Your task to perform on an android device: Open calendar and show me the third week of next month Image 0: 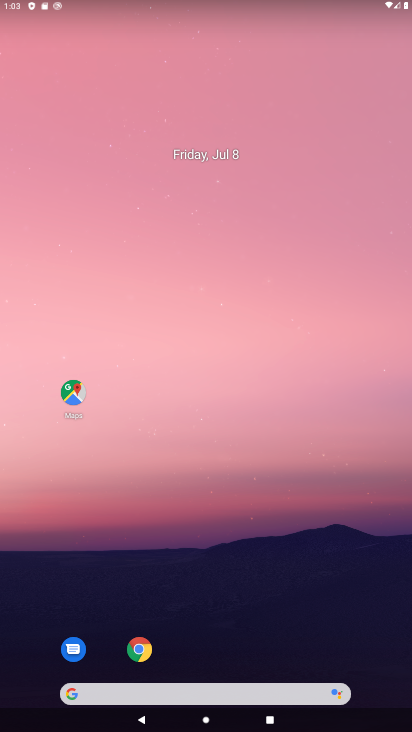
Step 0: drag from (266, 576) to (241, 101)
Your task to perform on an android device: Open calendar and show me the third week of next month Image 1: 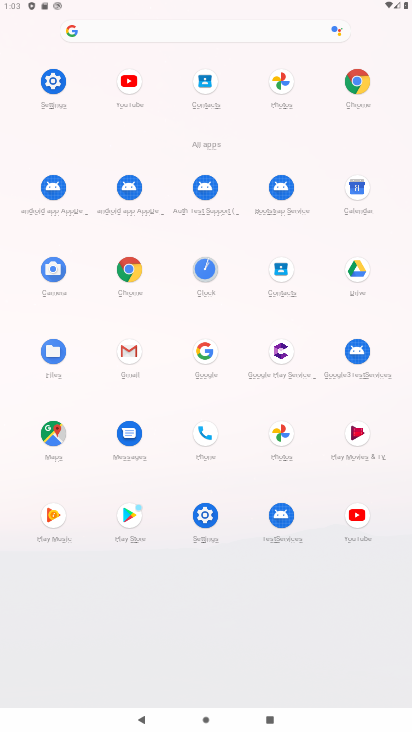
Step 1: click (360, 192)
Your task to perform on an android device: Open calendar and show me the third week of next month Image 2: 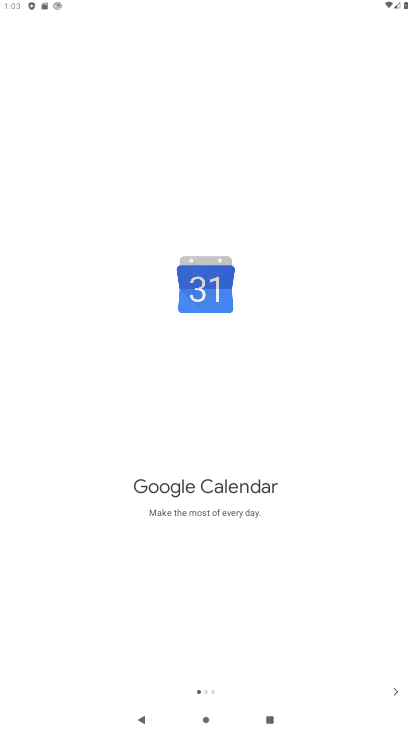
Step 2: click (390, 690)
Your task to perform on an android device: Open calendar and show me the third week of next month Image 3: 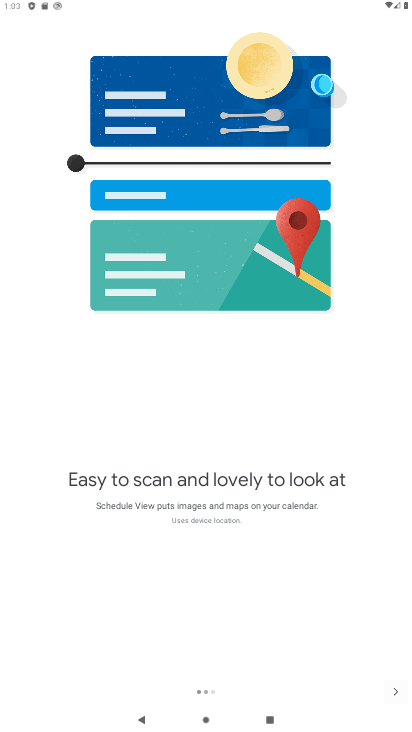
Step 3: click (390, 687)
Your task to perform on an android device: Open calendar and show me the third week of next month Image 4: 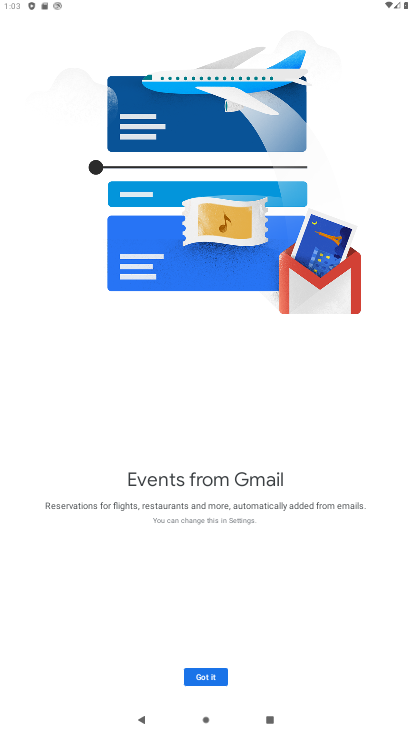
Step 4: click (197, 673)
Your task to perform on an android device: Open calendar and show me the third week of next month Image 5: 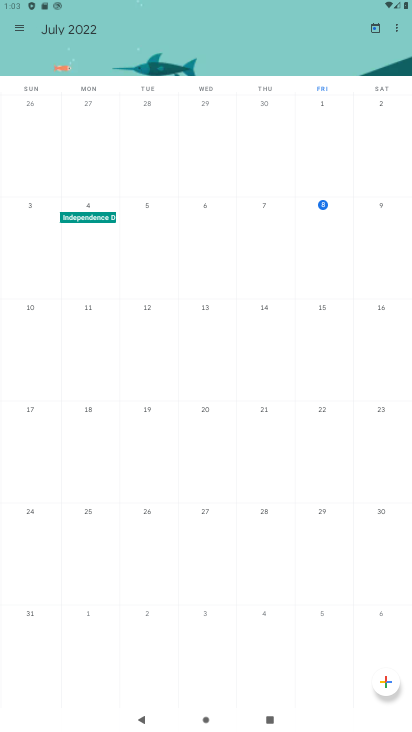
Step 5: drag from (374, 354) to (15, 326)
Your task to perform on an android device: Open calendar and show me the third week of next month Image 6: 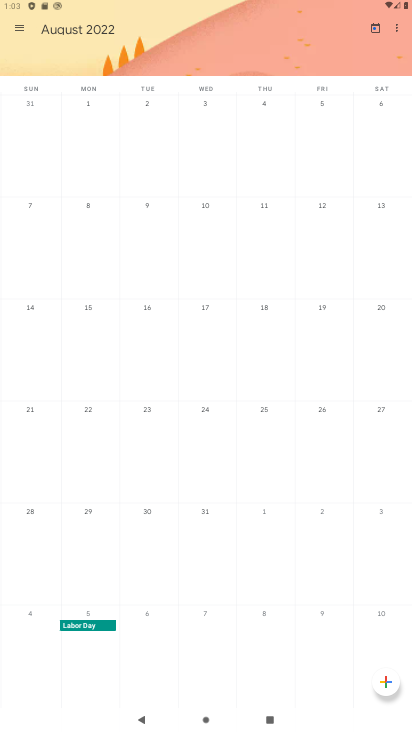
Step 6: click (34, 414)
Your task to perform on an android device: Open calendar and show me the third week of next month Image 7: 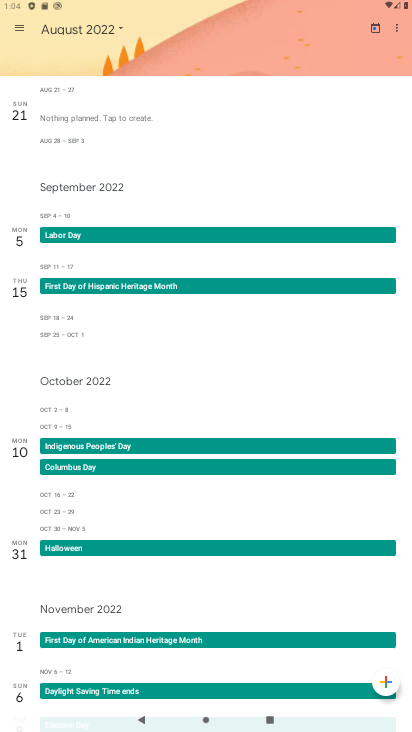
Step 7: click (89, 23)
Your task to perform on an android device: Open calendar and show me the third week of next month Image 8: 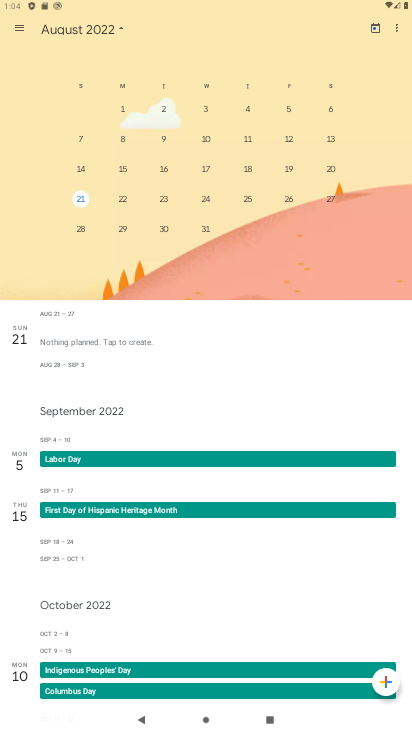
Step 8: click (79, 169)
Your task to perform on an android device: Open calendar and show me the third week of next month Image 9: 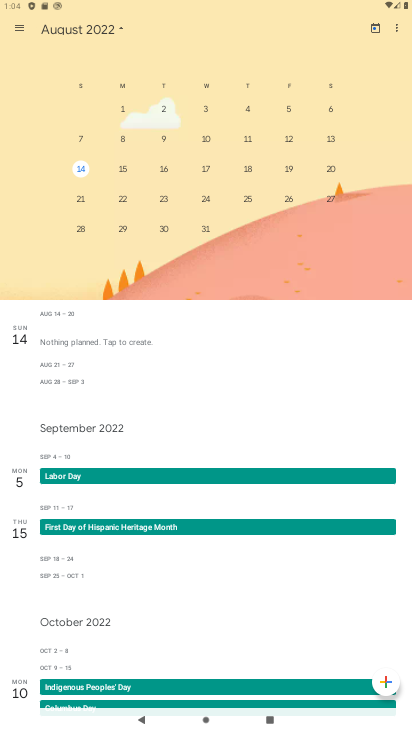
Step 9: drag from (265, 418) to (295, 85)
Your task to perform on an android device: Open calendar and show me the third week of next month Image 10: 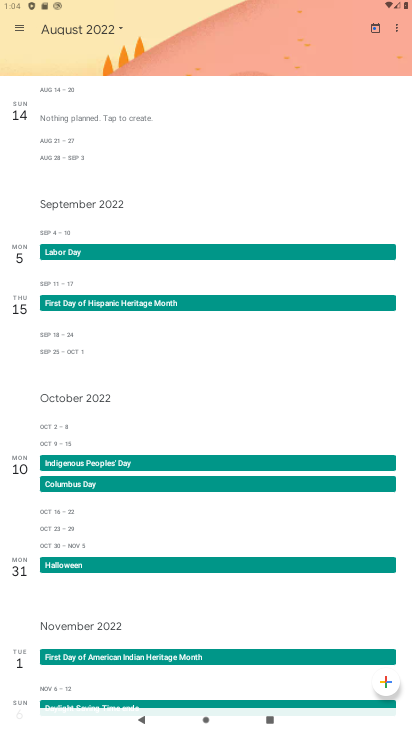
Step 10: click (16, 31)
Your task to perform on an android device: Open calendar and show me the third week of next month Image 11: 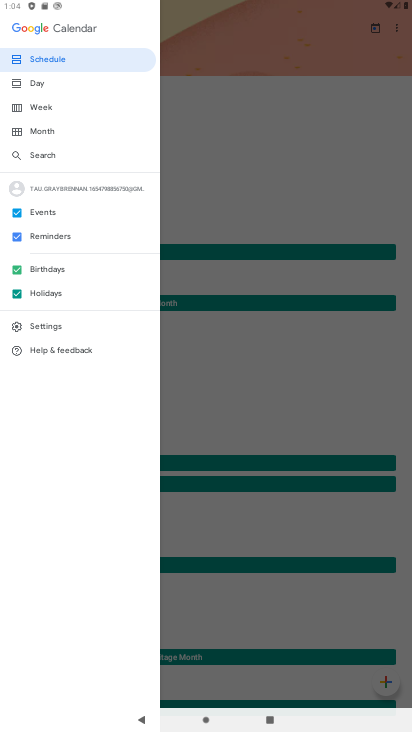
Step 11: click (38, 105)
Your task to perform on an android device: Open calendar and show me the third week of next month Image 12: 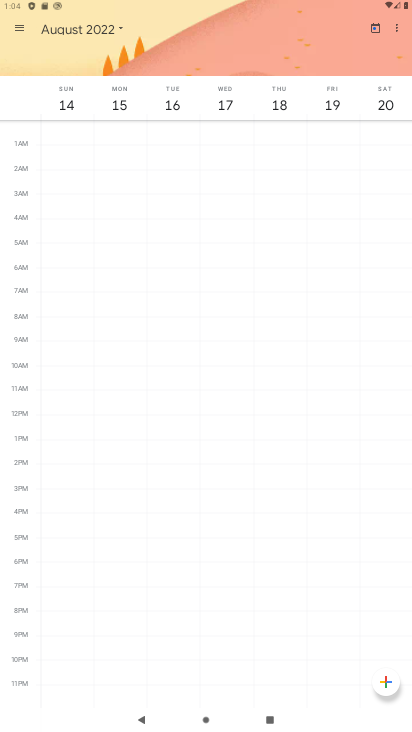
Step 12: task complete